Your task to perform on an android device: open a new tab in the chrome app Image 0: 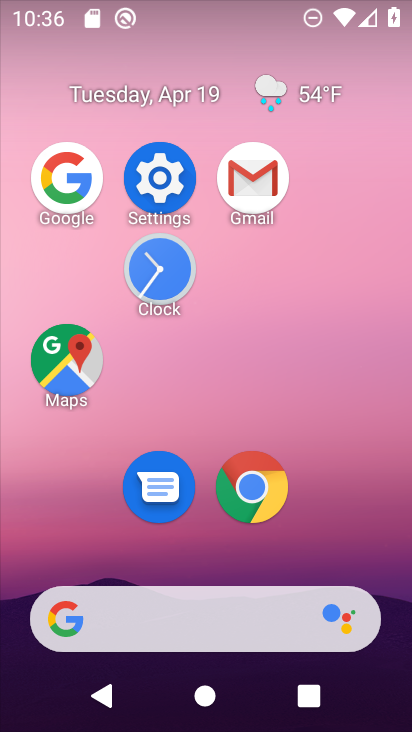
Step 0: click (254, 492)
Your task to perform on an android device: open a new tab in the chrome app Image 1: 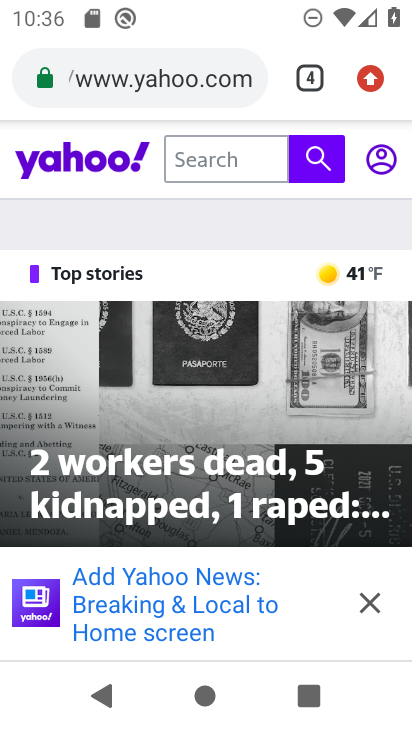
Step 1: click (309, 70)
Your task to perform on an android device: open a new tab in the chrome app Image 2: 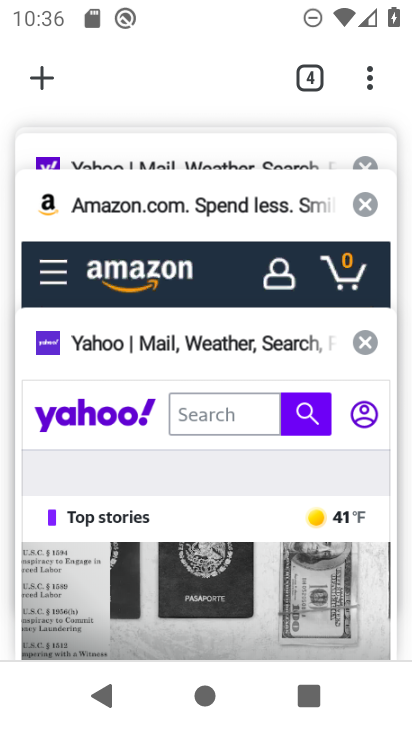
Step 2: click (51, 73)
Your task to perform on an android device: open a new tab in the chrome app Image 3: 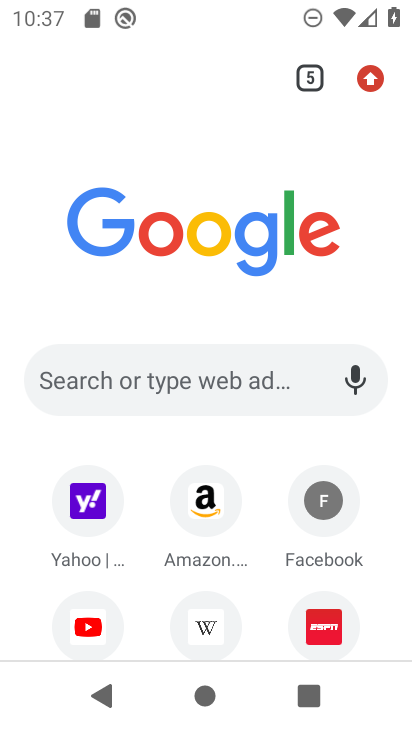
Step 3: task complete